Your task to perform on an android device: move a message to another label in the gmail app Image 0: 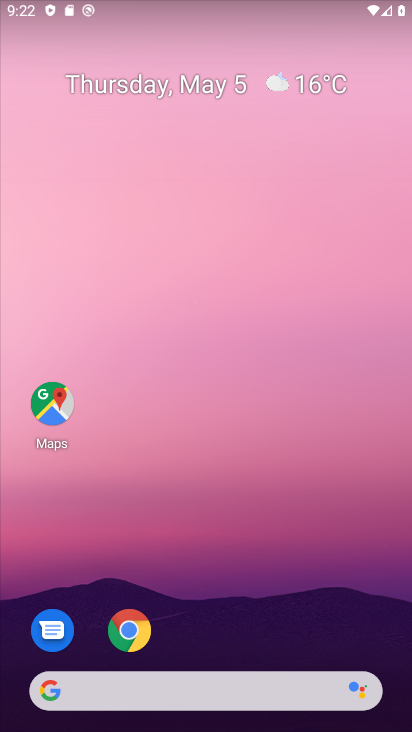
Step 0: drag from (305, 586) to (272, 3)
Your task to perform on an android device: move a message to another label in the gmail app Image 1: 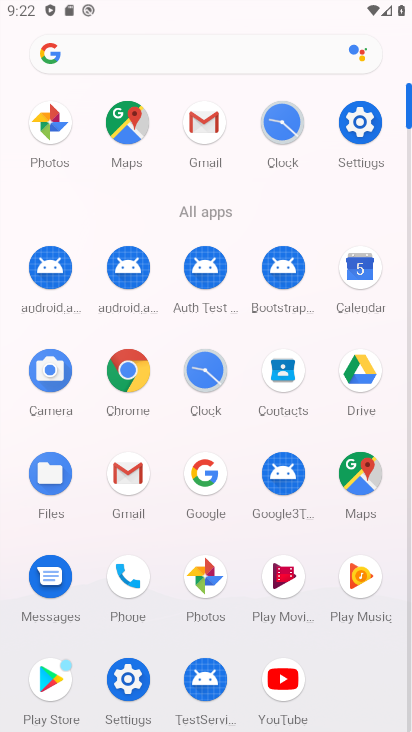
Step 1: click (200, 141)
Your task to perform on an android device: move a message to another label in the gmail app Image 2: 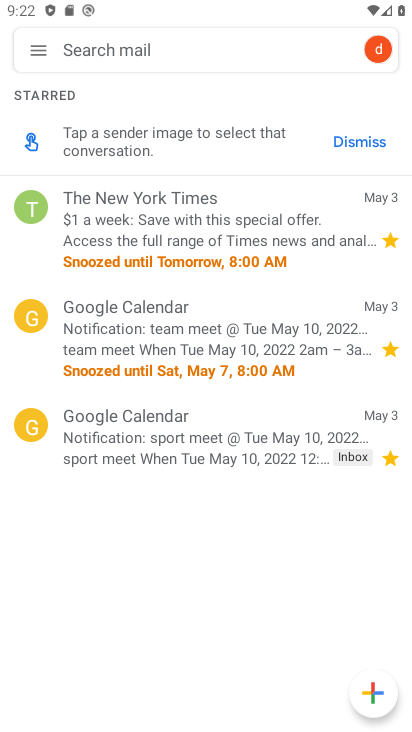
Step 2: click (35, 49)
Your task to perform on an android device: move a message to another label in the gmail app Image 3: 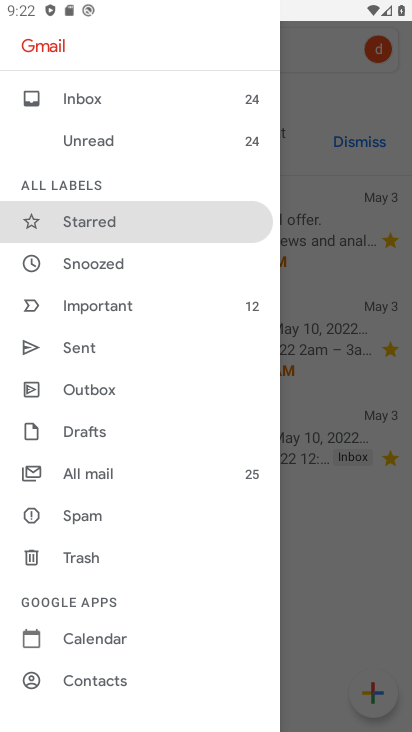
Step 3: click (71, 102)
Your task to perform on an android device: move a message to another label in the gmail app Image 4: 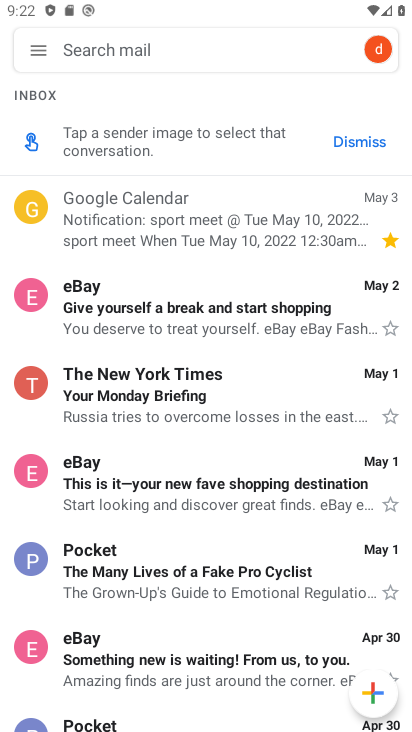
Step 4: click (35, 300)
Your task to perform on an android device: move a message to another label in the gmail app Image 5: 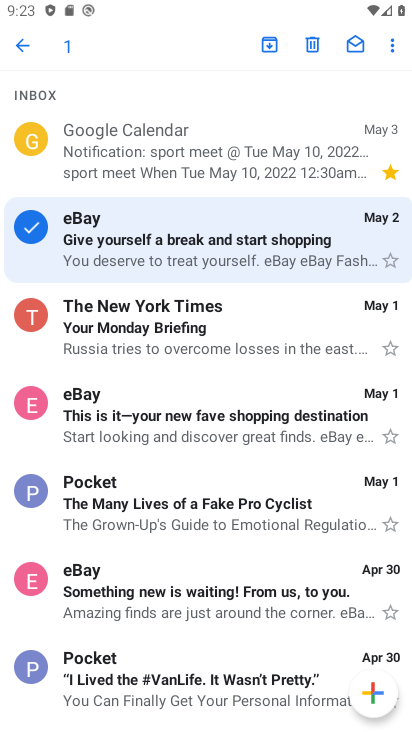
Step 5: click (390, 48)
Your task to perform on an android device: move a message to another label in the gmail app Image 6: 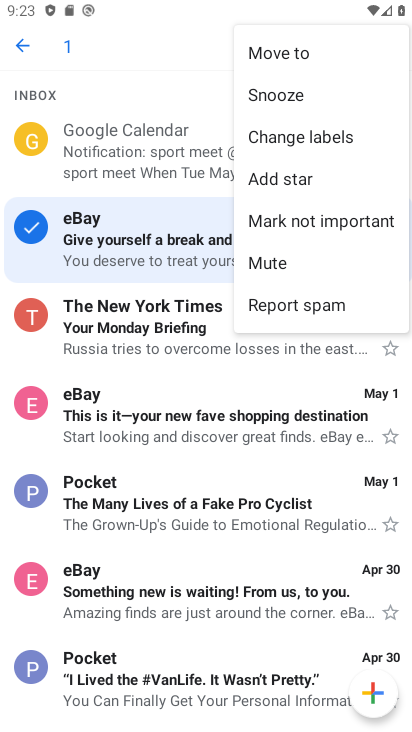
Step 6: click (311, 54)
Your task to perform on an android device: move a message to another label in the gmail app Image 7: 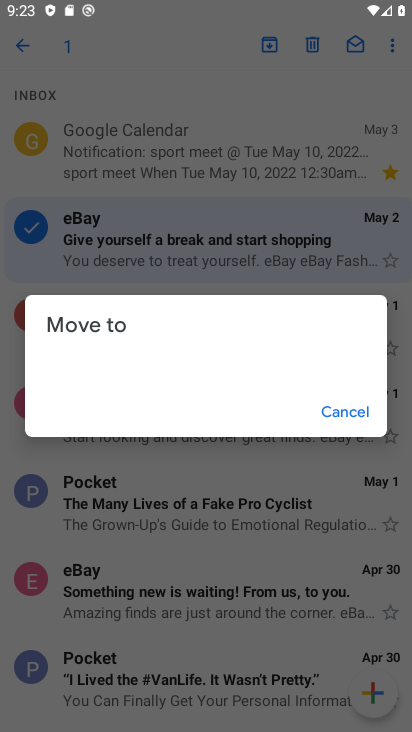
Step 7: task complete